Your task to perform on an android device: add a contact Image 0: 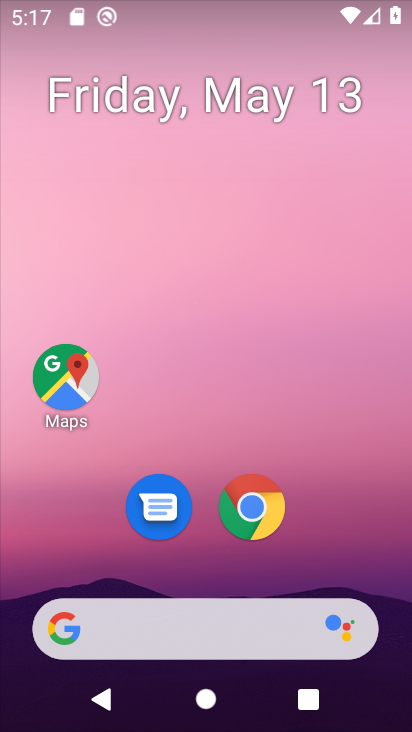
Step 0: drag from (334, 544) to (270, 56)
Your task to perform on an android device: add a contact Image 1: 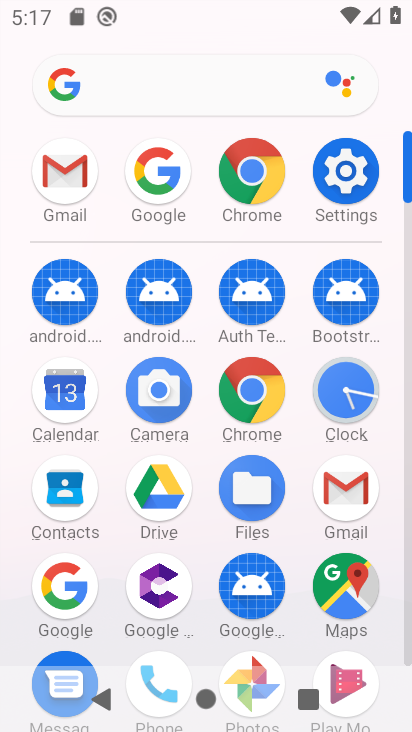
Step 1: click (65, 493)
Your task to perform on an android device: add a contact Image 2: 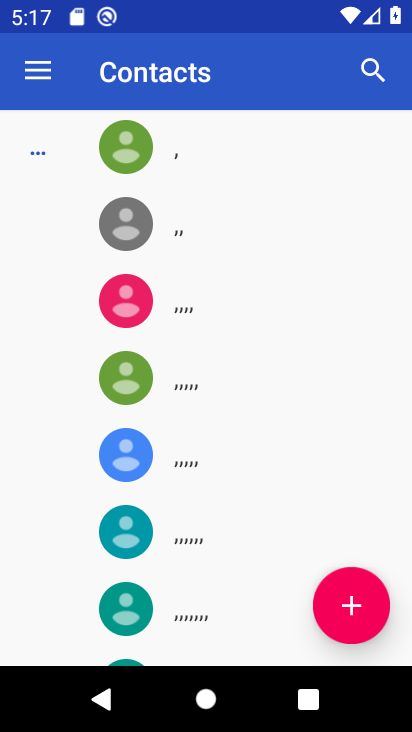
Step 2: click (371, 610)
Your task to perform on an android device: add a contact Image 3: 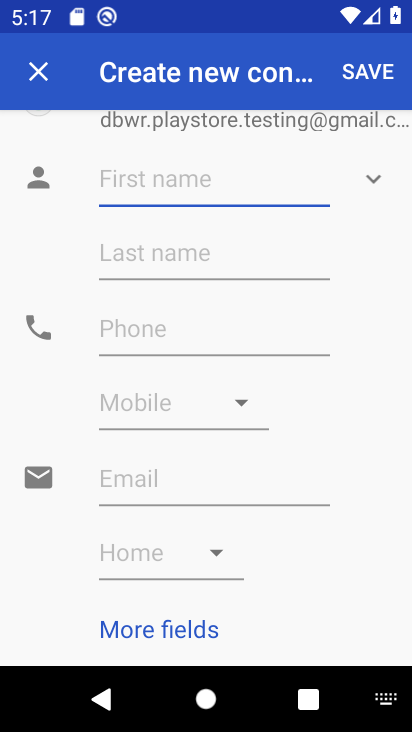
Step 3: type "ddfsr"
Your task to perform on an android device: add a contact Image 4: 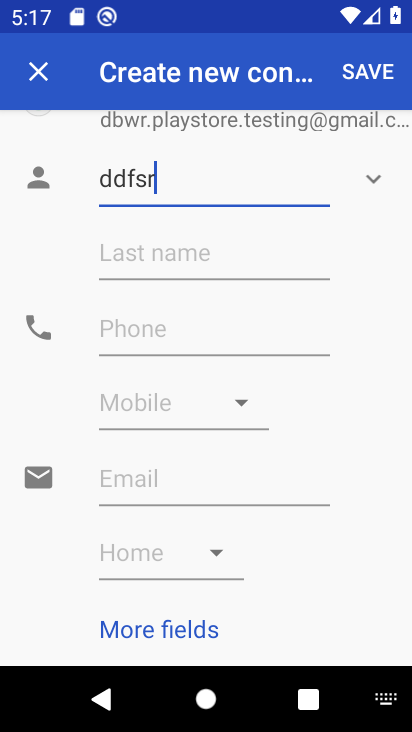
Step 4: type ""
Your task to perform on an android device: add a contact Image 5: 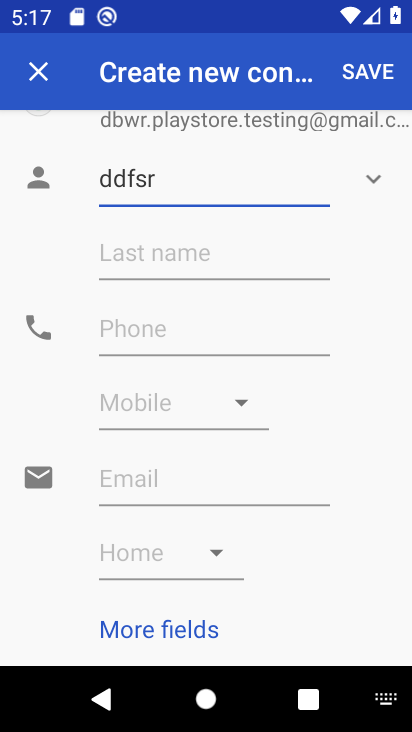
Step 5: click (234, 256)
Your task to perform on an android device: add a contact Image 6: 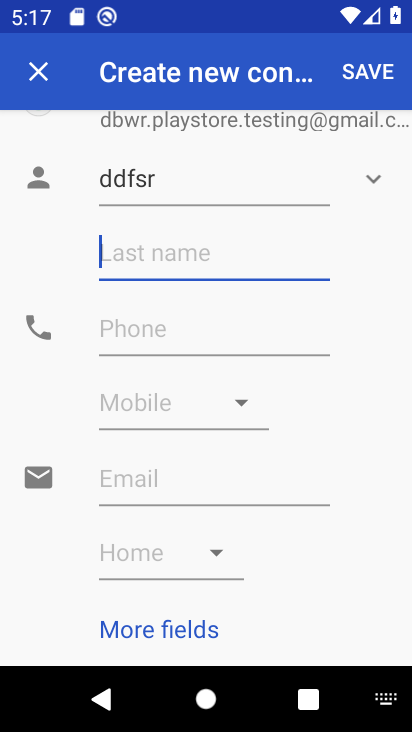
Step 6: type "fgdfg"
Your task to perform on an android device: add a contact Image 7: 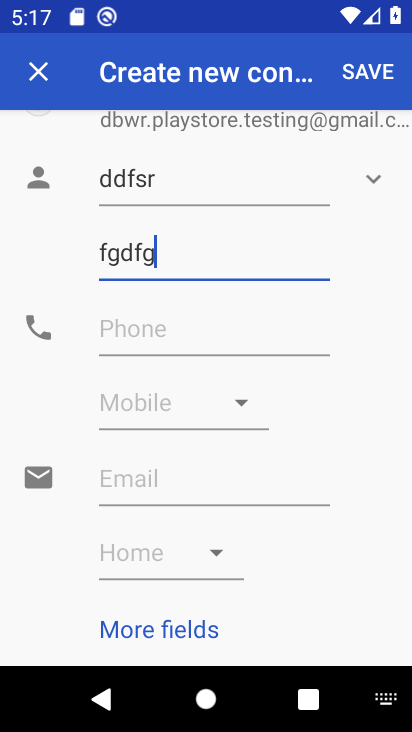
Step 7: type ""
Your task to perform on an android device: add a contact Image 8: 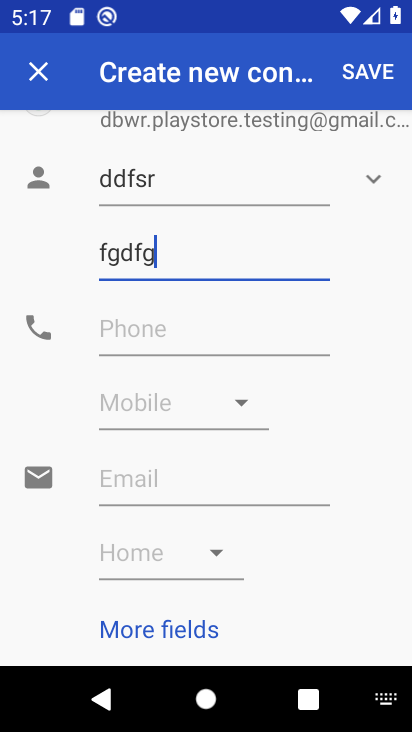
Step 8: click (249, 348)
Your task to perform on an android device: add a contact Image 9: 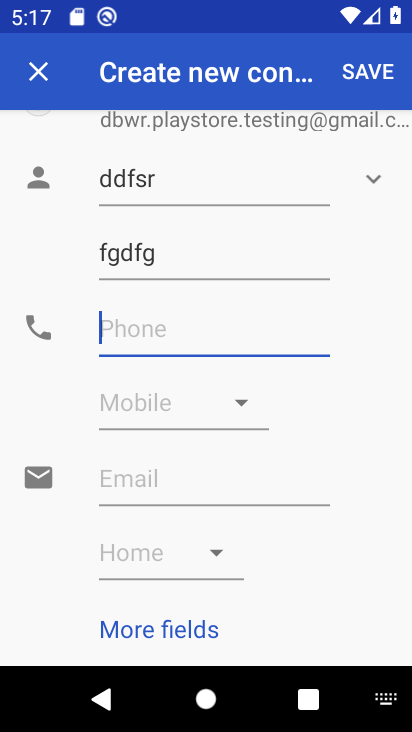
Step 9: type "5634563456"
Your task to perform on an android device: add a contact Image 10: 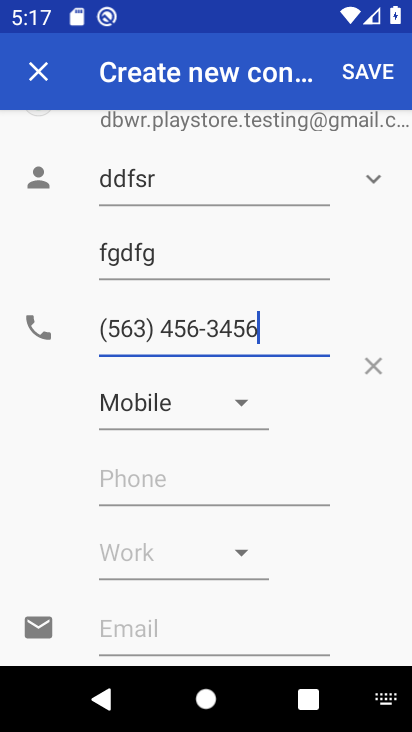
Step 10: type ""
Your task to perform on an android device: add a contact Image 11: 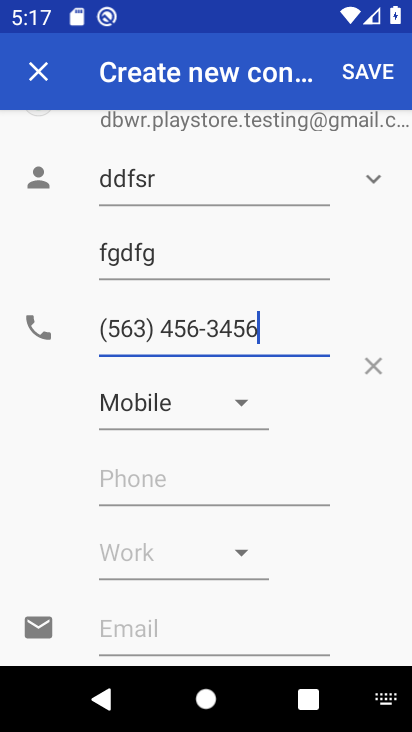
Step 11: click (365, 72)
Your task to perform on an android device: add a contact Image 12: 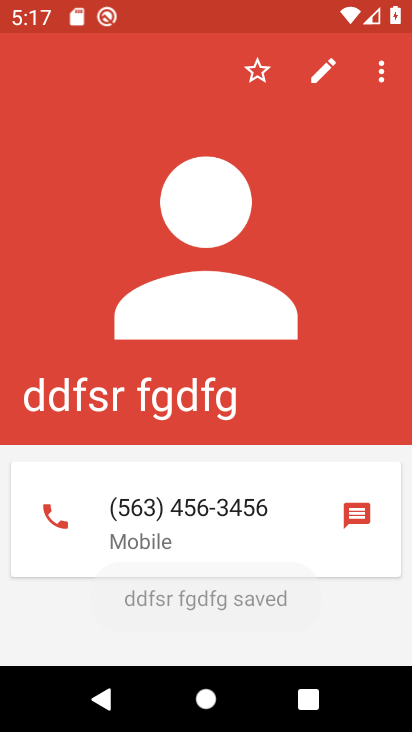
Step 12: task complete